Your task to perform on an android device: Open Google Chrome and open the bookmarks view Image 0: 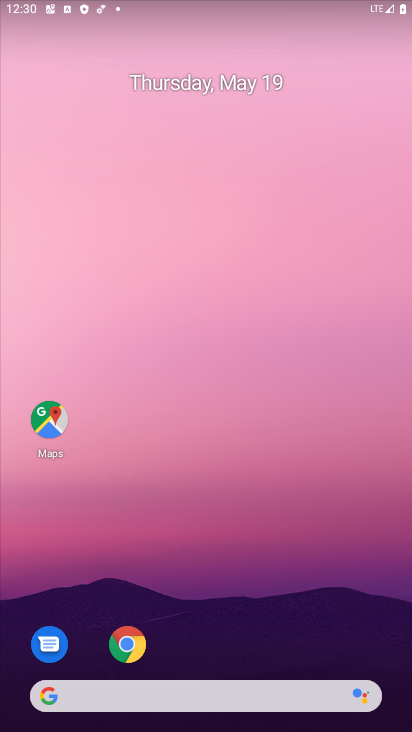
Step 0: drag from (336, 618) to (272, 71)
Your task to perform on an android device: Open Google Chrome and open the bookmarks view Image 1: 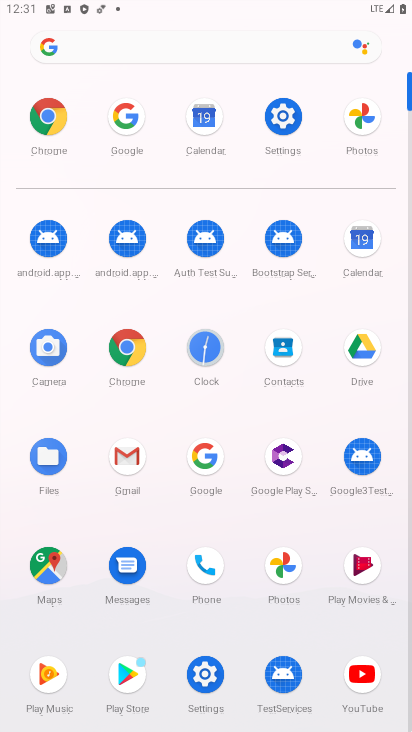
Step 1: click (118, 372)
Your task to perform on an android device: Open Google Chrome and open the bookmarks view Image 2: 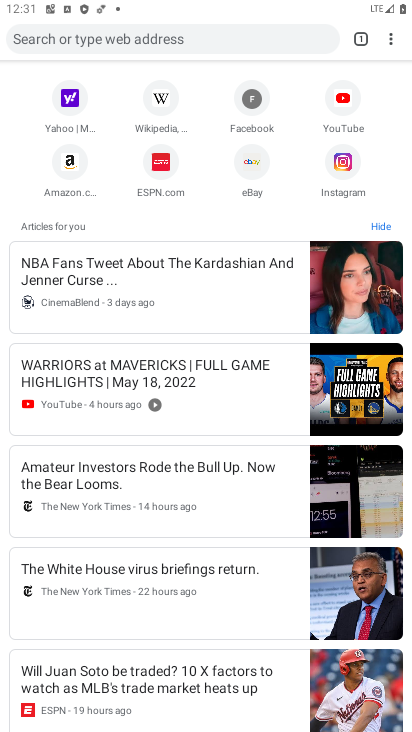
Step 2: click (389, 38)
Your task to perform on an android device: Open Google Chrome and open the bookmarks view Image 3: 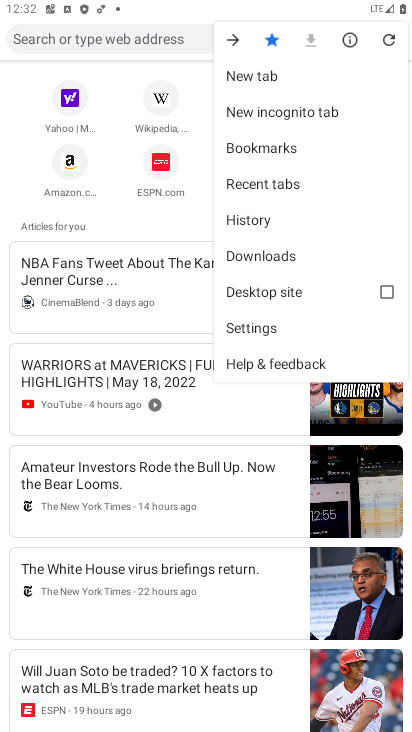
Step 3: click (296, 151)
Your task to perform on an android device: Open Google Chrome and open the bookmarks view Image 4: 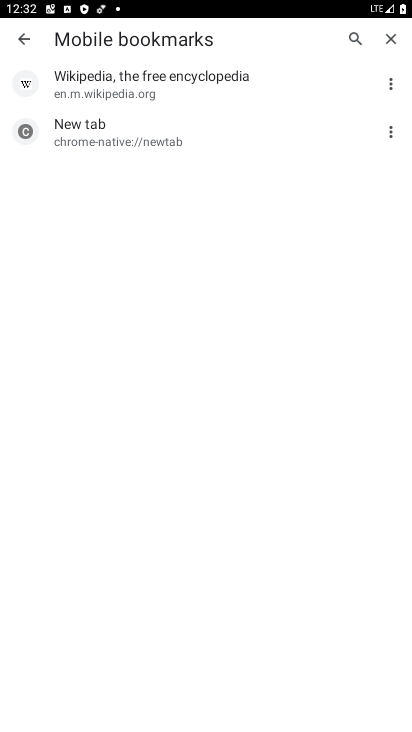
Step 4: task complete